Your task to perform on an android device: Open network settings Image 0: 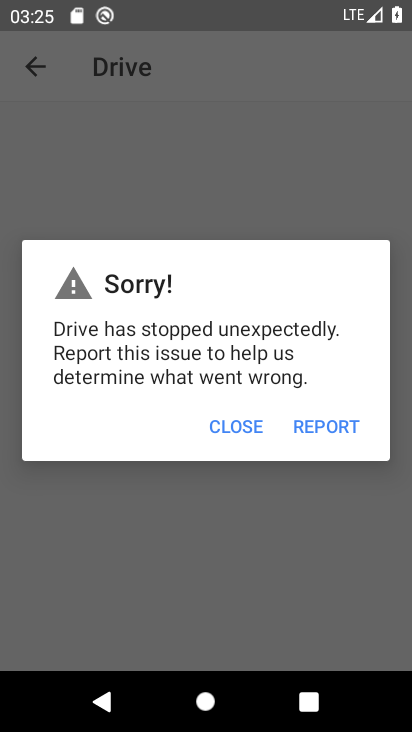
Step 0: press home button
Your task to perform on an android device: Open network settings Image 1: 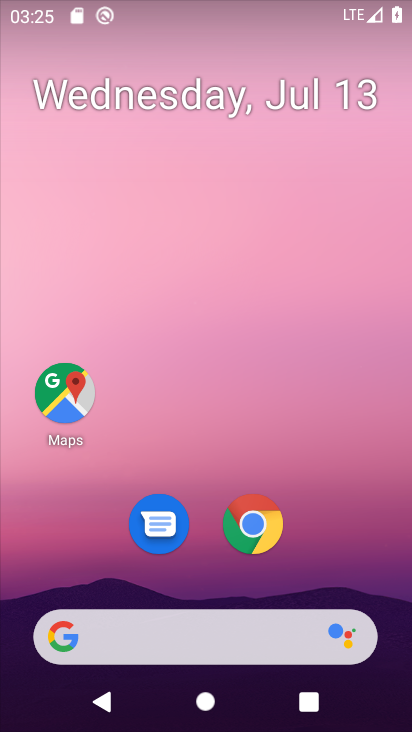
Step 1: drag from (358, 527) to (375, 83)
Your task to perform on an android device: Open network settings Image 2: 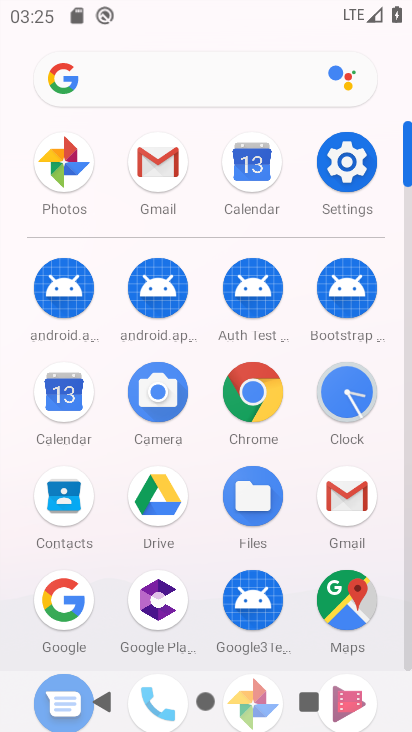
Step 2: click (347, 161)
Your task to perform on an android device: Open network settings Image 3: 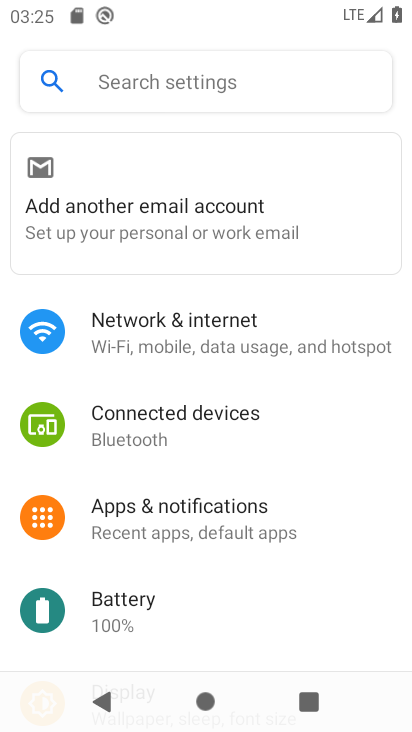
Step 3: click (287, 346)
Your task to perform on an android device: Open network settings Image 4: 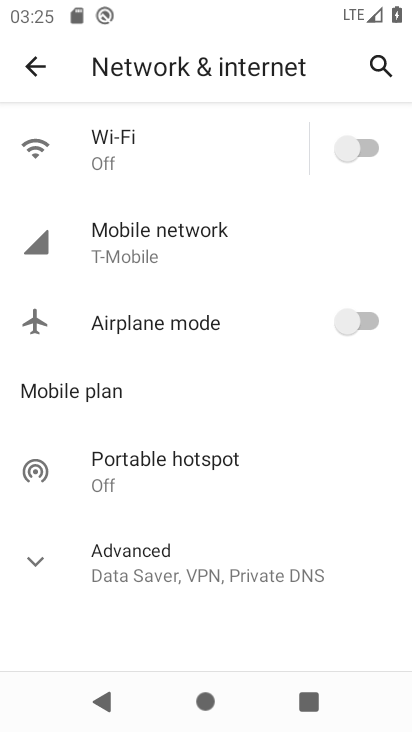
Step 4: task complete